Your task to perform on an android device: Go to privacy settings Image 0: 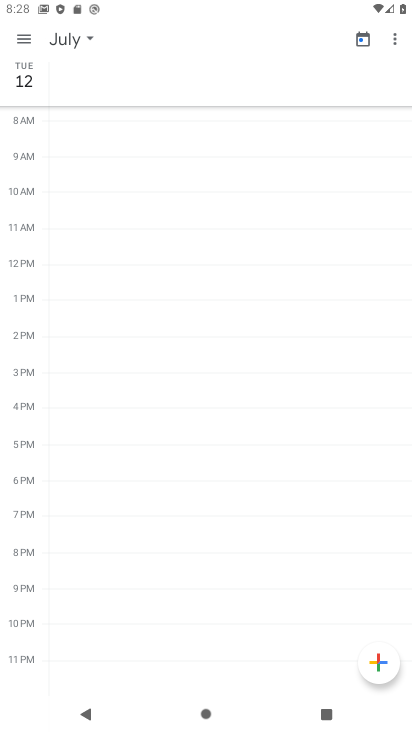
Step 0: press home button
Your task to perform on an android device: Go to privacy settings Image 1: 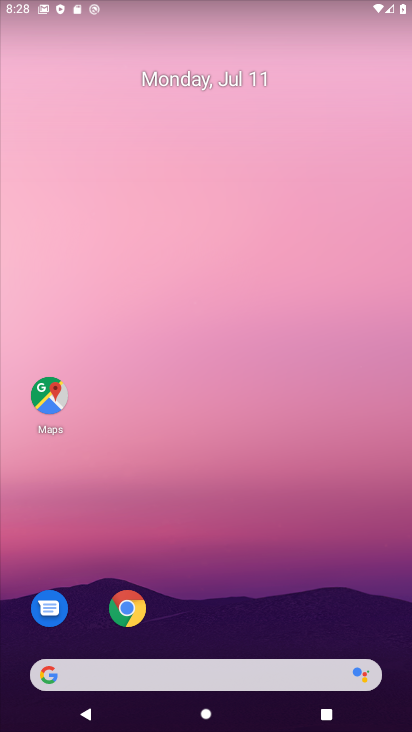
Step 1: drag from (353, 585) to (332, 19)
Your task to perform on an android device: Go to privacy settings Image 2: 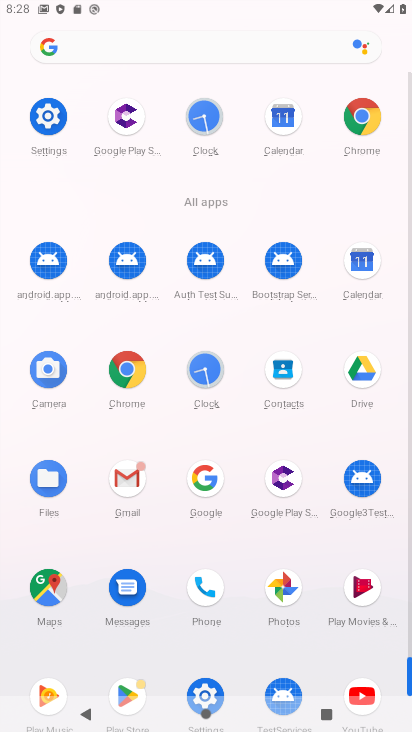
Step 2: click (202, 688)
Your task to perform on an android device: Go to privacy settings Image 3: 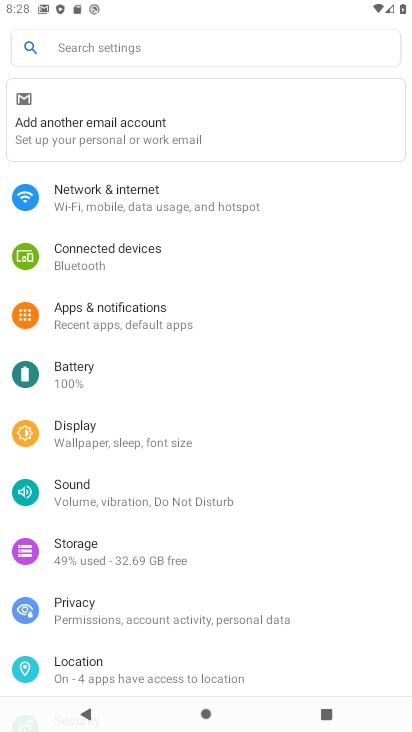
Step 3: click (85, 604)
Your task to perform on an android device: Go to privacy settings Image 4: 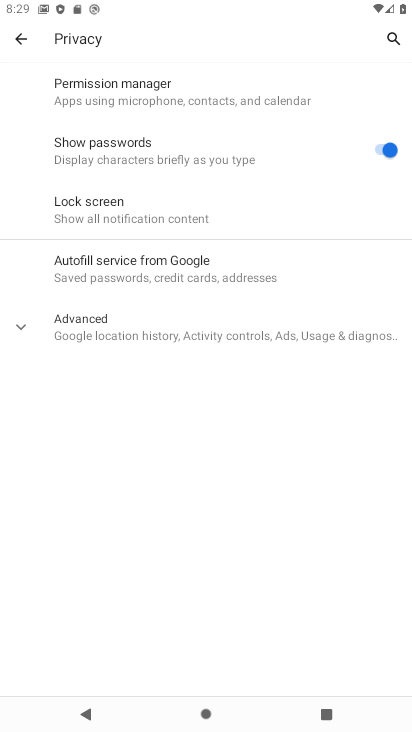
Step 4: task complete